Your task to perform on an android device: Open Google Chrome Image 0: 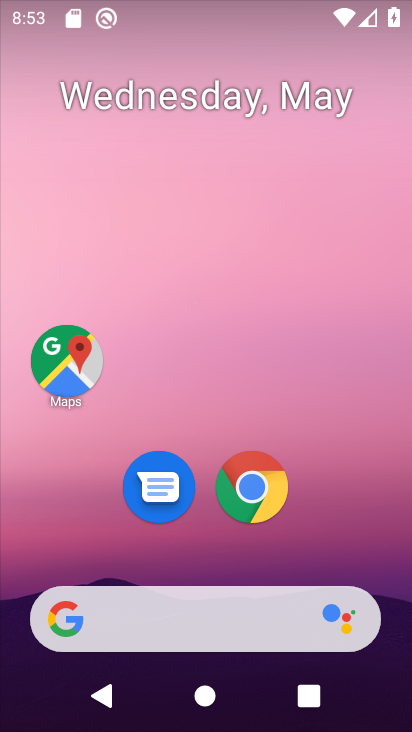
Step 0: click (262, 484)
Your task to perform on an android device: Open Google Chrome Image 1: 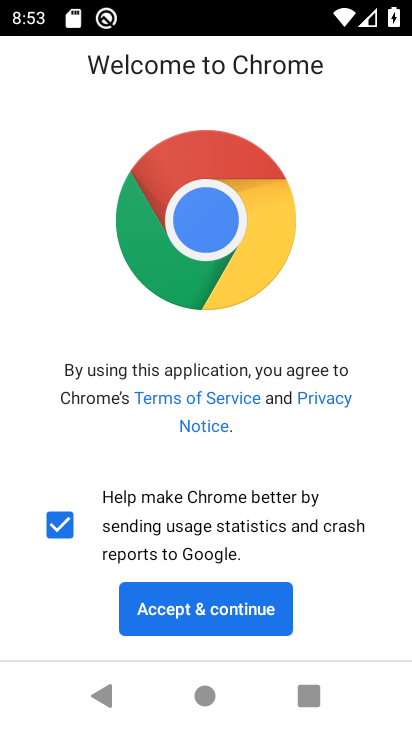
Step 1: click (256, 617)
Your task to perform on an android device: Open Google Chrome Image 2: 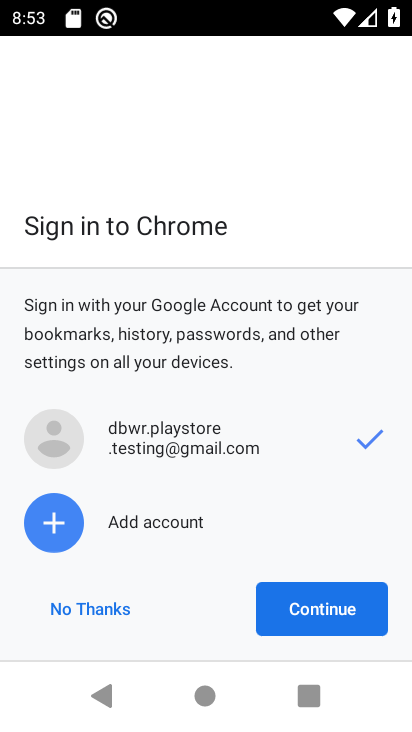
Step 2: click (351, 607)
Your task to perform on an android device: Open Google Chrome Image 3: 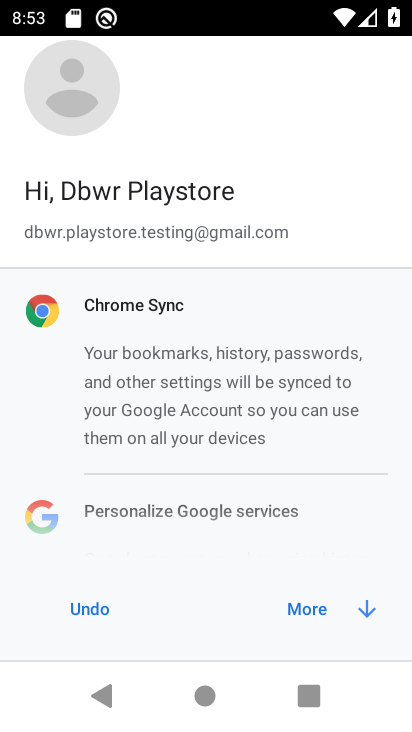
Step 3: click (317, 612)
Your task to perform on an android device: Open Google Chrome Image 4: 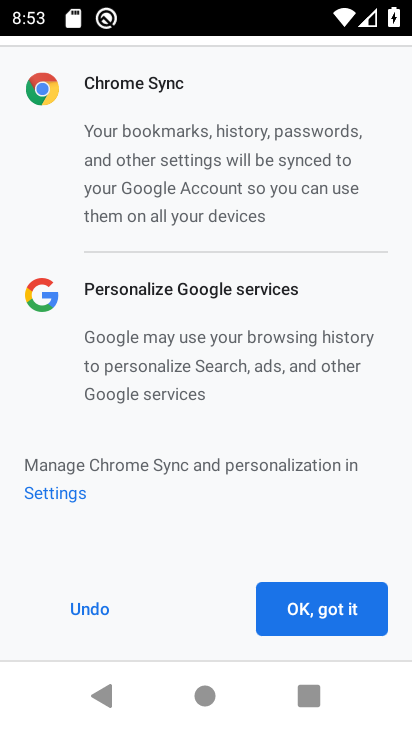
Step 4: click (348, 618)
Your task to perform on an android device: Open Google Chrome Image 5: 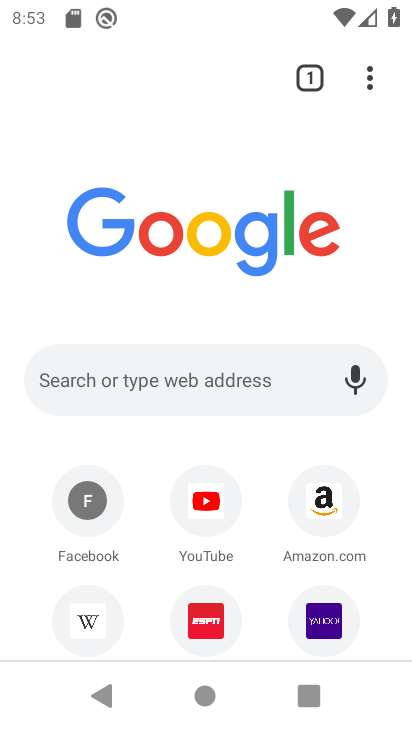
Step 5: task complete